Your task to perform on an android device: Open wifi settings Image 0: 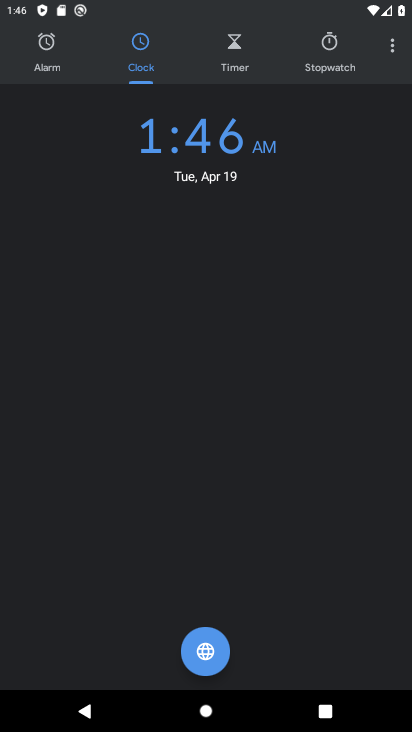
Step 0: press home button
Your task to perform on an android device: Open wifi settings Image 1: 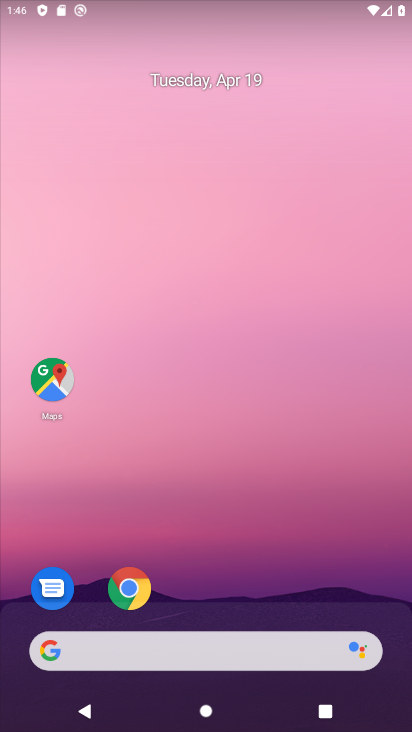
Step 1: drag from (311, 405) to (319, 128)
Your task to perform on an android device: Open wifi settings Image 2: 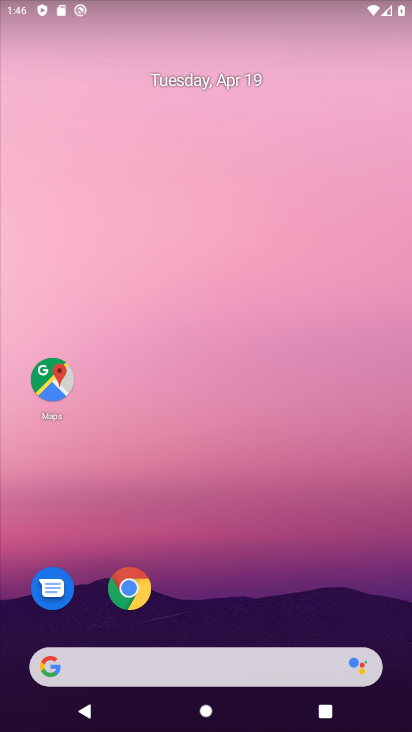
Step 2: drag from (280, 540) to (273, 68)
Your task to perform on an android device: Open wifi settings Image 3: 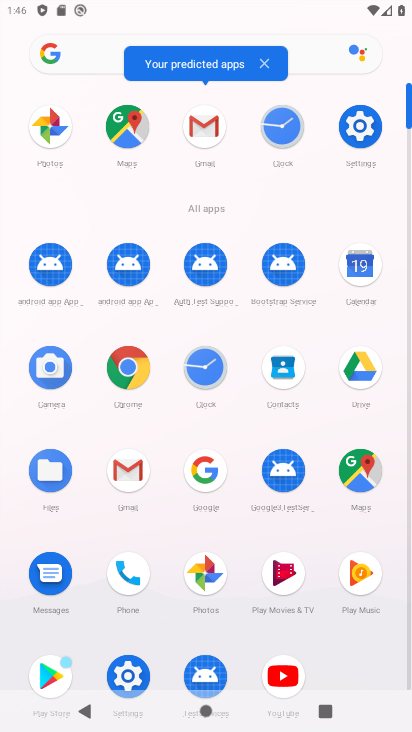
Step 3: click (367, 133)
Your task to perform on an android device: Open wifi settings Image 4: 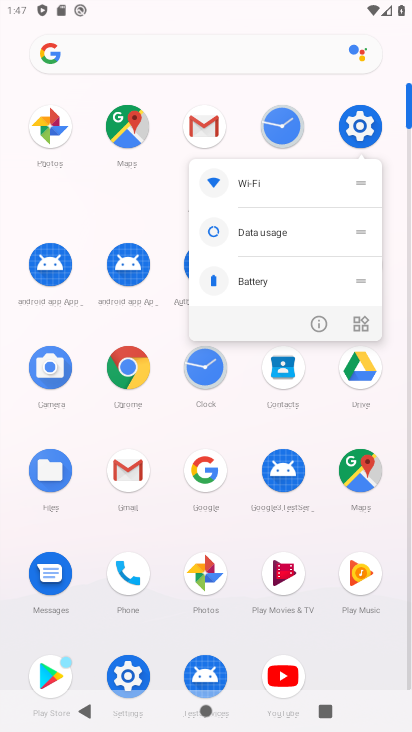
Step 4: click (354, 136)
Your task to perform on an android device: Open wifi settings Image 5: 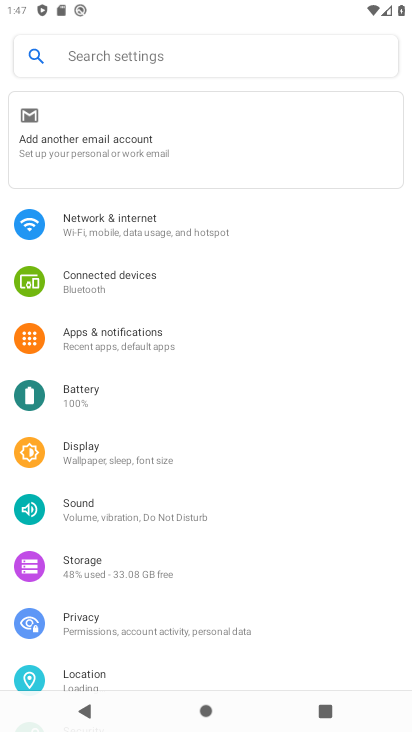
Step 5: click (118, 233)
Your task to perform on an android device: Open wifi settings Image 6: 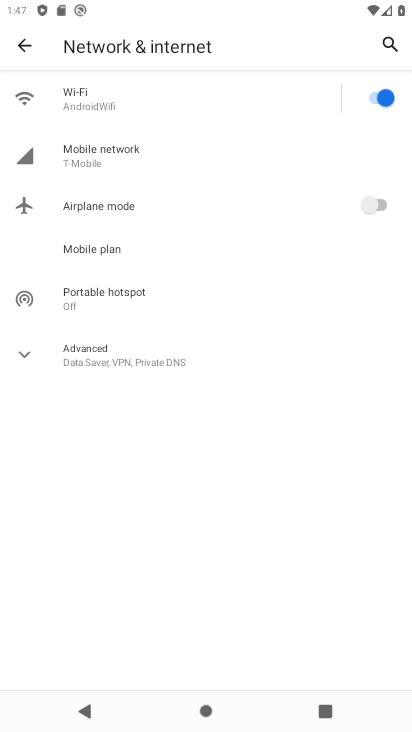
Step 6: click (126, 90)
Your task to perform on an android device: Open wifi settings Image 7: 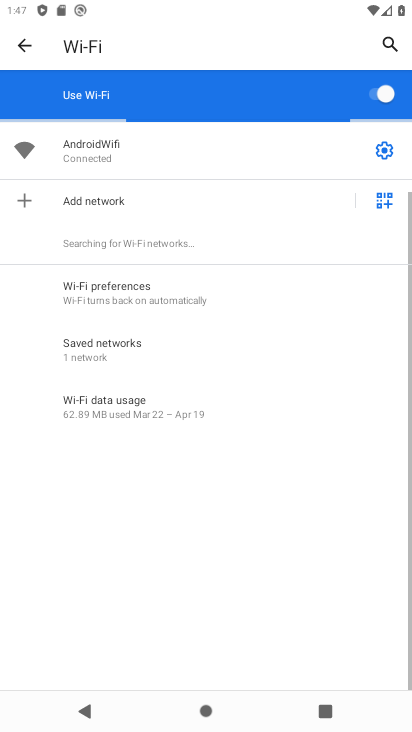
Step 7: task complete